Your task to perform on an android device: Show me popular videos on Youtube Image 0: 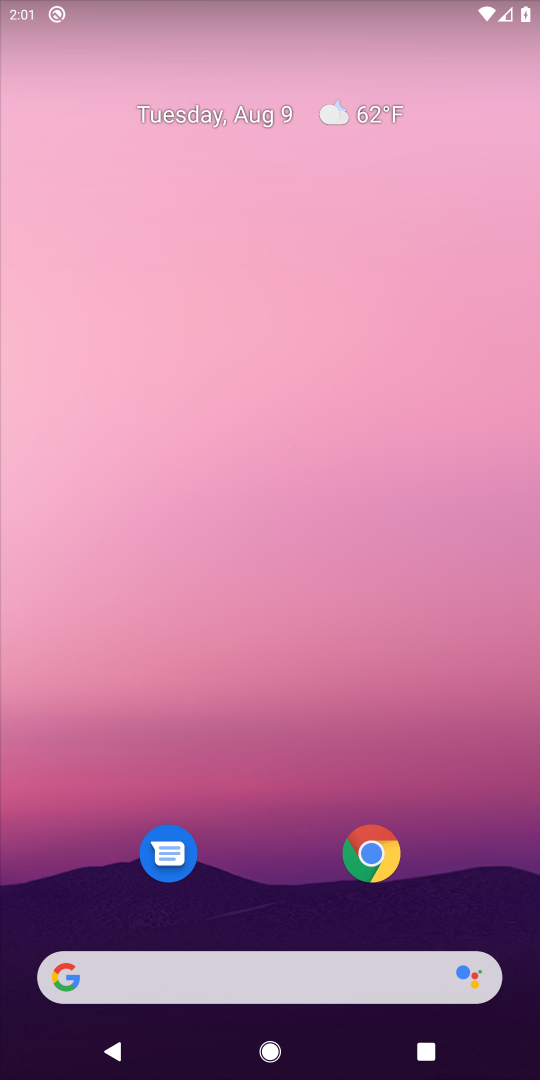
Step 0: drag from (232, 837) to (253, 103)
Your task to perform on an android device: Show me popular videos on Youtube Image 1: 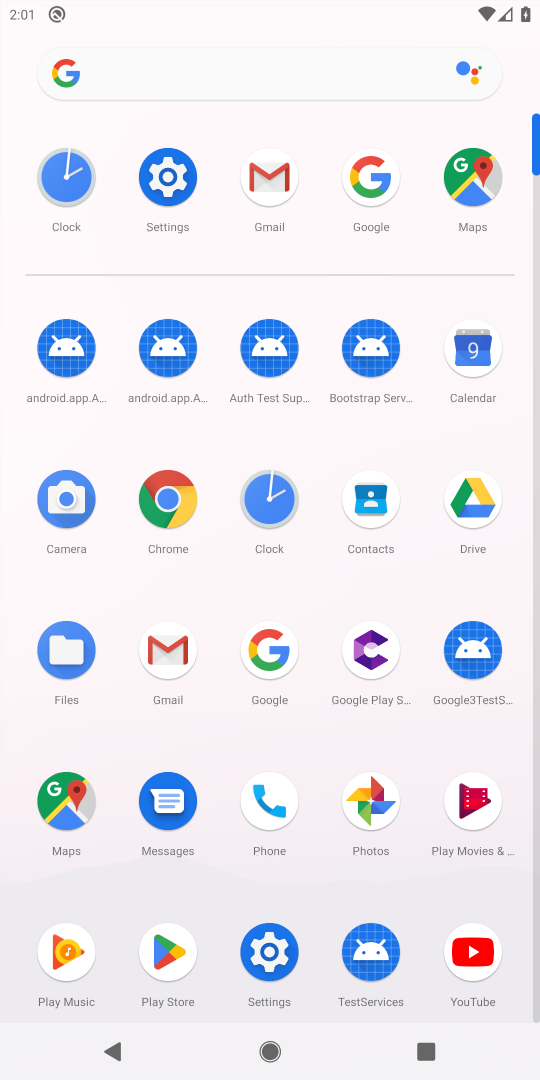
Step 1: click (479, 957)
Your task to perform on an android device: Show me popular videos on Youtube Image 2: 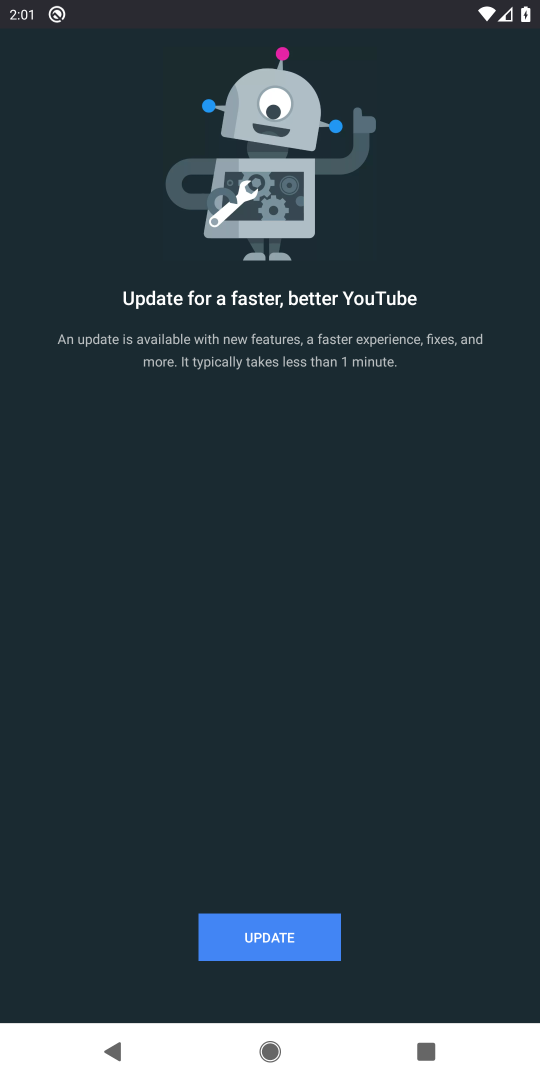
Step 2: click (271, 938)
Your task to perform on an android device: Show me popular videos on Youtube Image 3: 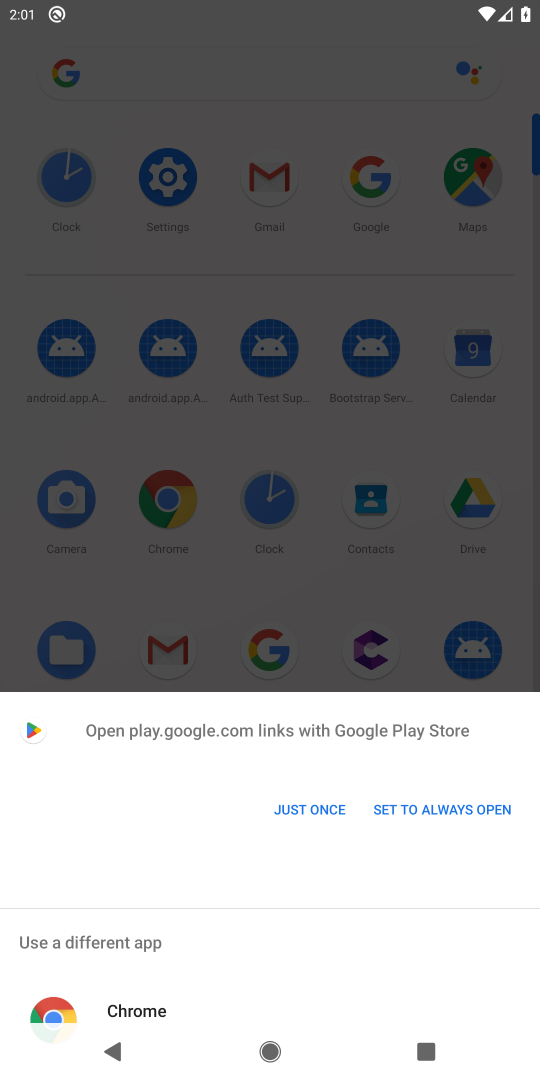
Step 3: click (291, 809)
Your task to perform on an android device: Show me popular videos on Youtube Image 4: 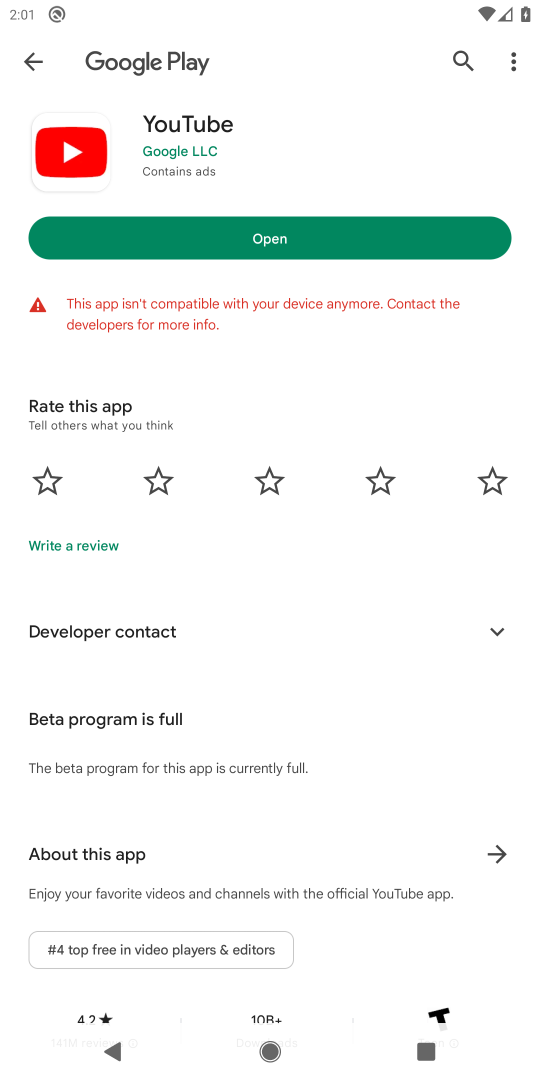
Step 4: task complete